Your task to perform on an android device: Add apple airpods pro to the cart on amazon, then select checkout. Image 0: 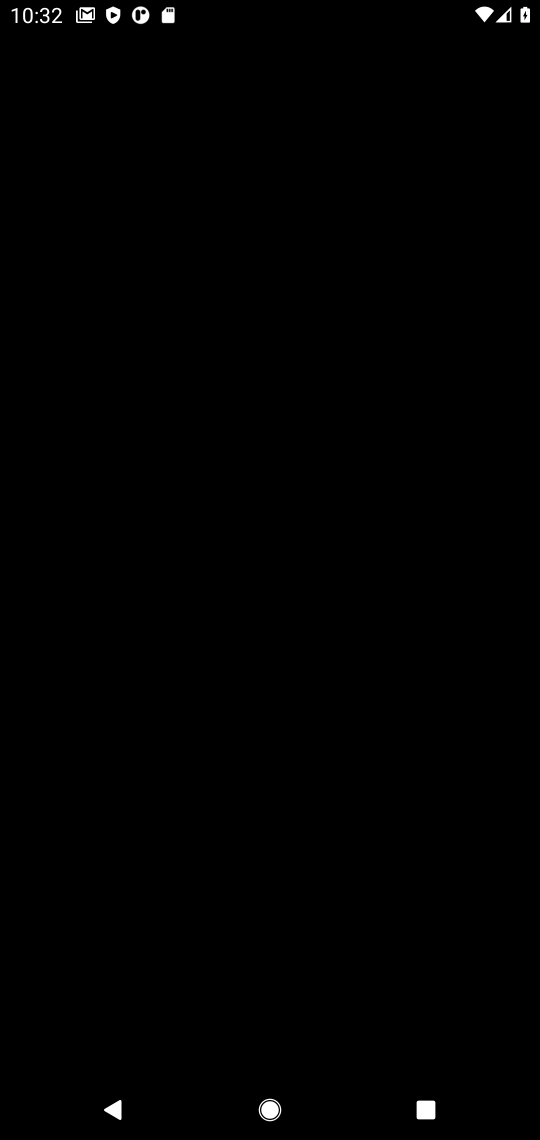
Step 0: press home button
Your task to perform on an android device: Add apple airpods pro to the cart on amazon, then select checkout. Image 1: 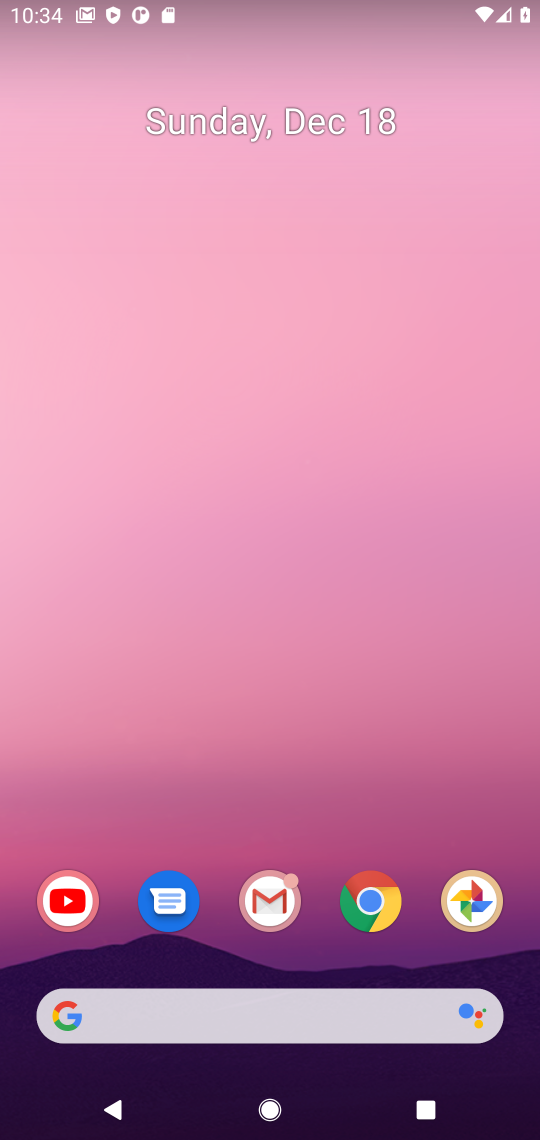
Step 1: click (376, 914)
Your task to perform on an android device: Add apple airpods pro to the cart on amazon, then select checkout. Image 2: 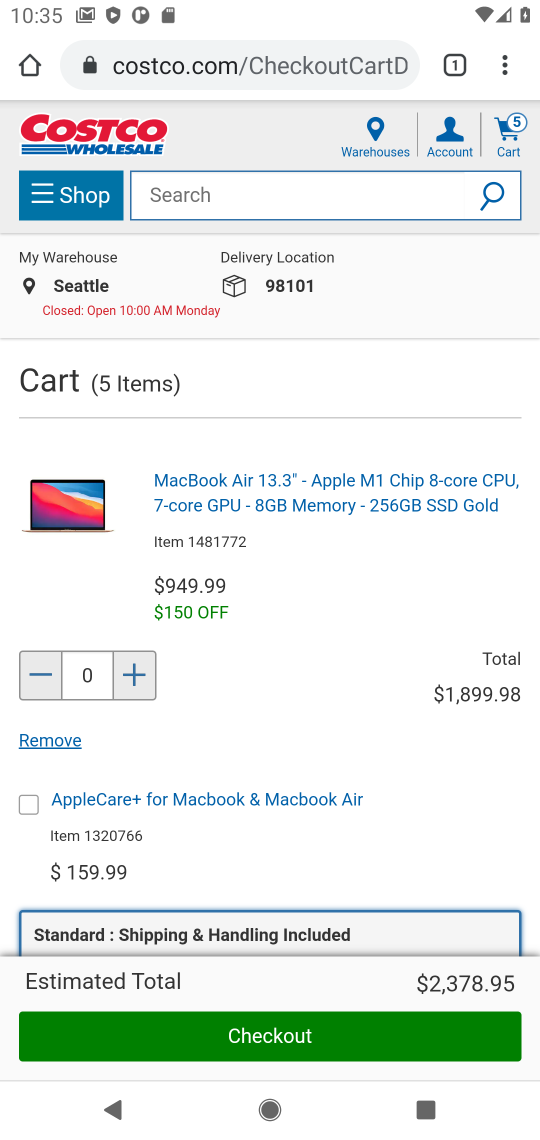
Step 2: task complete